Your task to perform on an android device: toggle javascript in the chrome app Image 0: 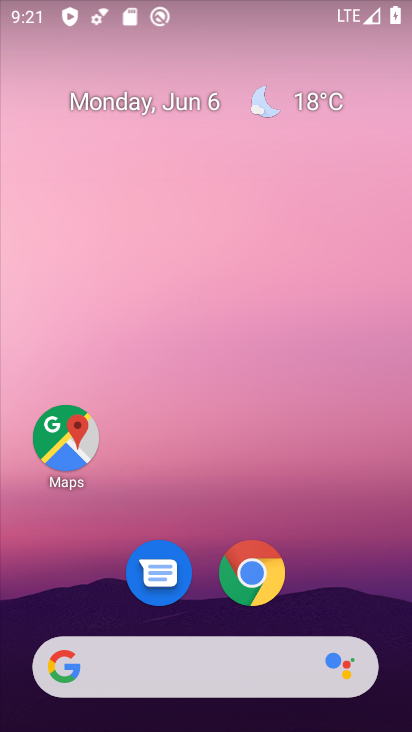
Step 0: click (272, 588)
Your task to perform on an android device: toggle javascript in the chrome app Image 1: 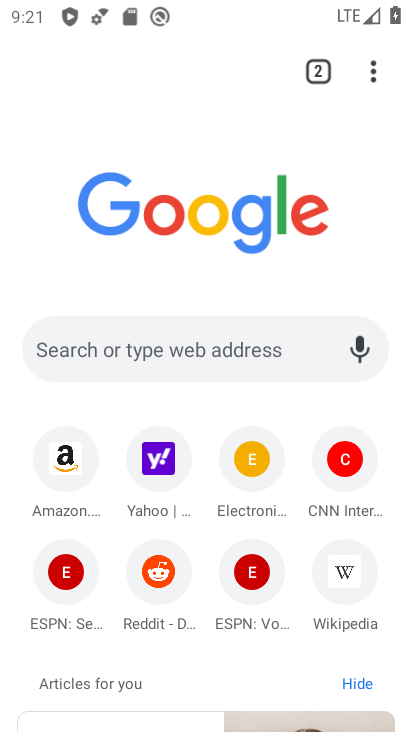
Step 1: drag from (373, 72) to (142, 595)
Your task to perform on an android device: toggle javascript in the chrome app Image 2: 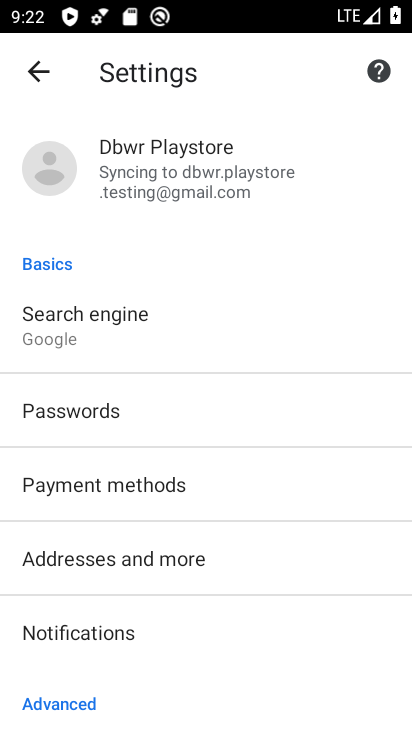
Step 2: drag from (156, 629) to (261, 201)
Your task to perform on an android device: toggle javascript in the chrome app Image 3: 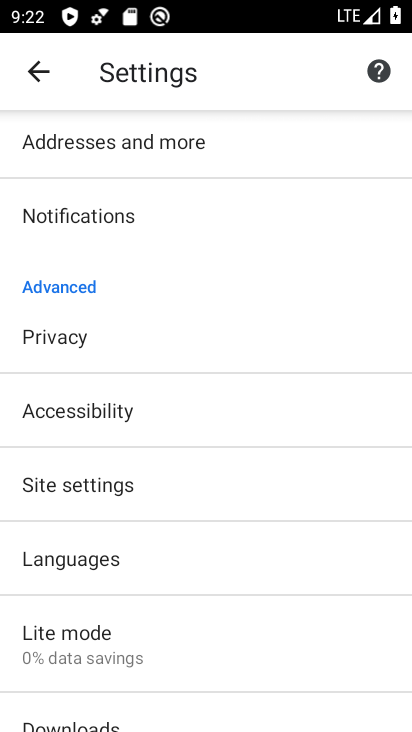
Step 3: click (102, 502)
Your task to perform on an android device: toggle javascript in the chrome app Image 4: 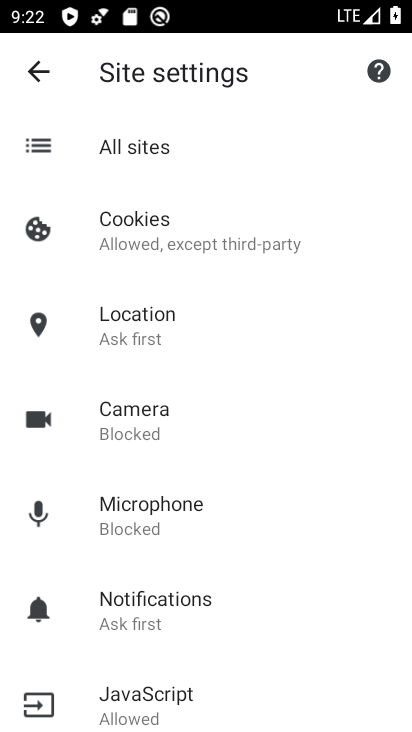
Step 4: click (142, 704)
Your task to perform on an android device: toggle javascript in the chrome app Image 5: 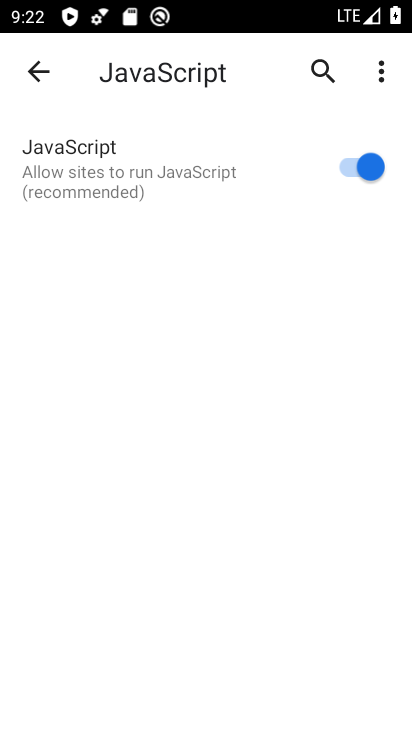
Step 5: click (353, 180)
Your task to perform on an android device: toggle javascript in the chrome app Image 6: 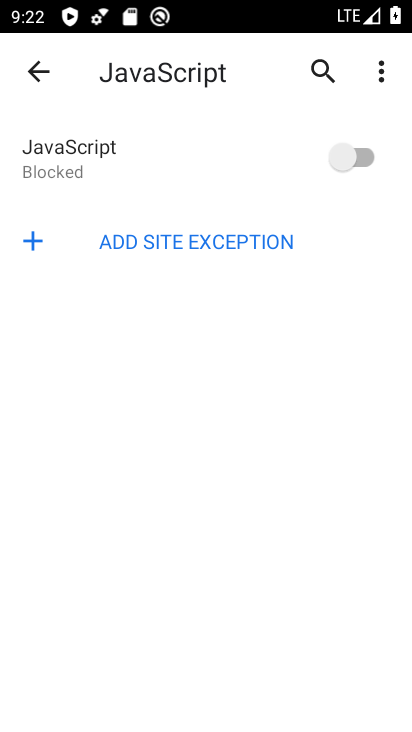
Step 6: task complete